Your task to perform on an android device: turn on airplane mode Image 0: 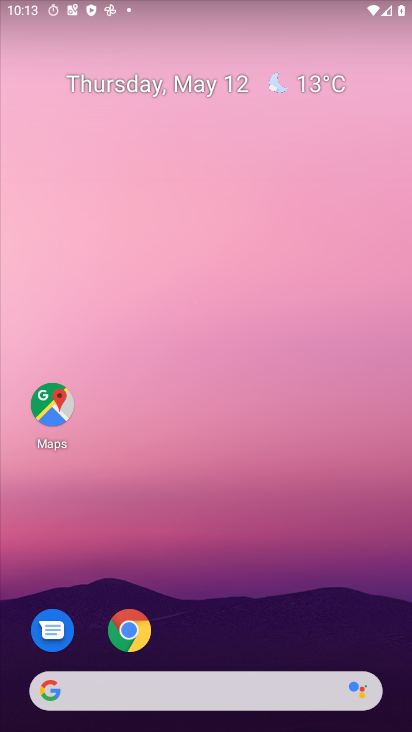
Step 0: drag from (257, 672) to (308, 169)
Your task to perform on an android device: turn on airplane mode Image 1: 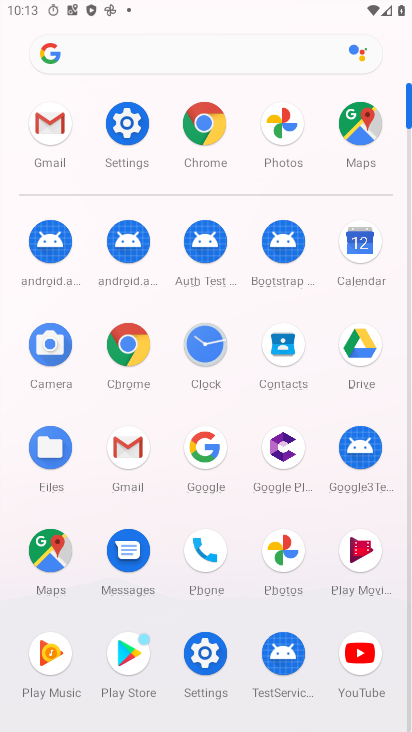
Step 1: click (190, 648)
Your task to perform on an android device: turn on airplane mode Image 2: 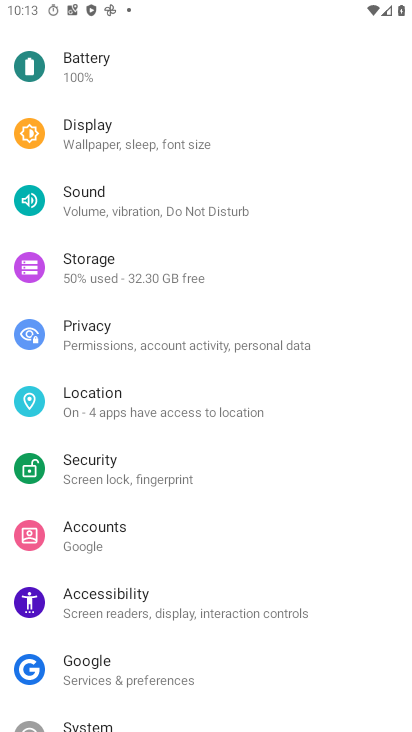
Step 2: drag from (121, 161) to (107, 720)
Your task to perform on an android device: turn on airplane mode Image 3: 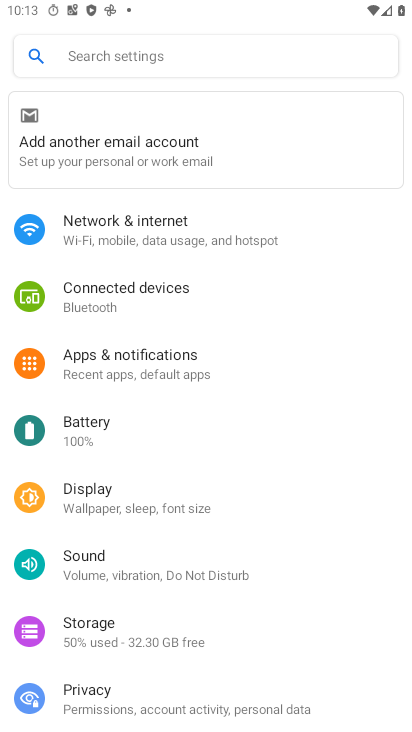
Step 3: click (134, 222)
Your task to perform on an android device: turn on airplane mode Image 4: 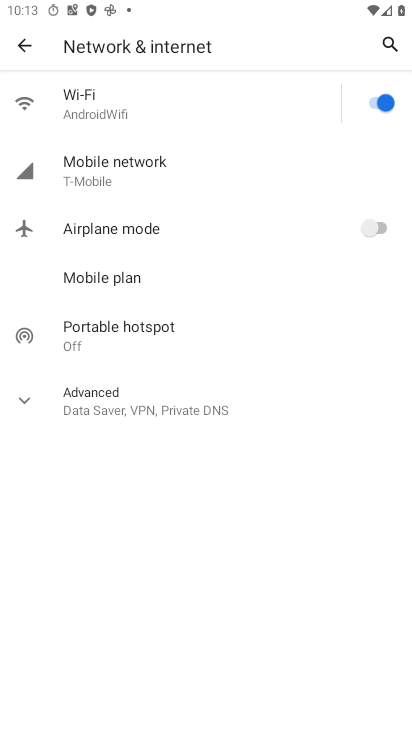
Step 4: click (375, 223)
Your task to perform on an android device: turn on airplane mode Image 5: 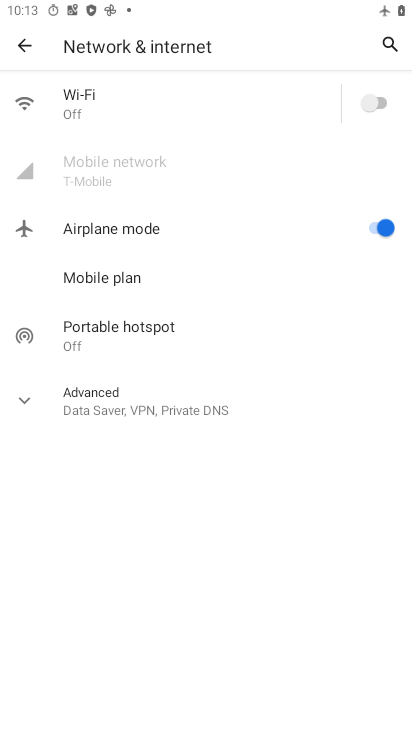
Step 5: task complete